Your task to perform on an android device: change alarm snooze length Image 0: 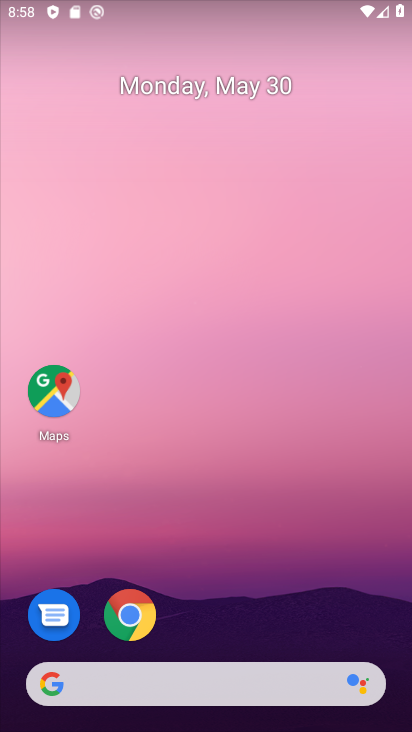
Step 0: drag from (242, 493) to (273, 50)
Your task to perform on an android device: change alarm snooze length Image 1: 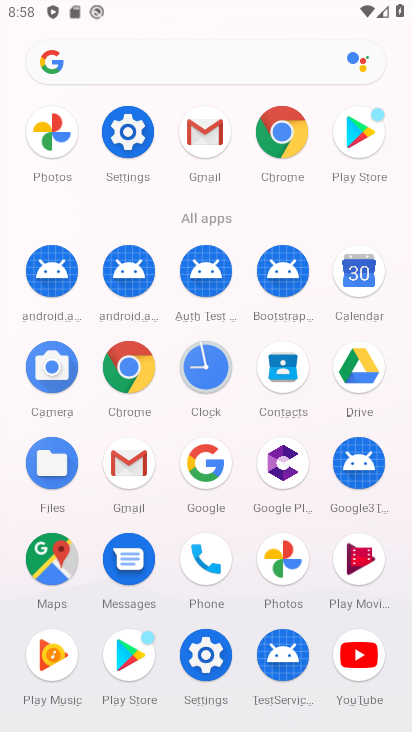
Step 1: click (211, 371)
Your task to perform on an android device: change alarm snooze length Image 2: 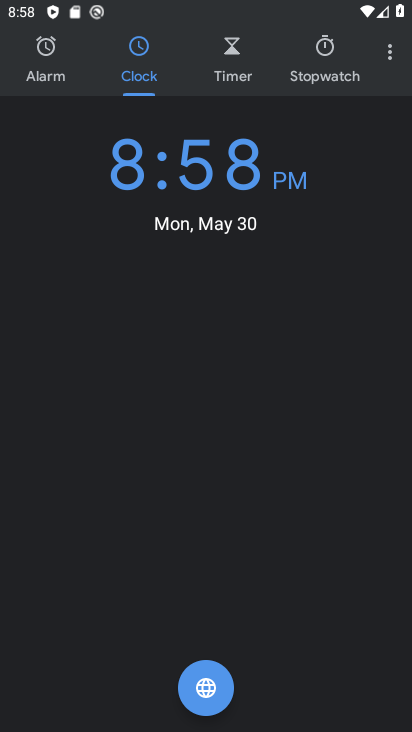
Step 2: click (392, 48)
Your task to perform on an android device: change alarm snooze length Image 3: 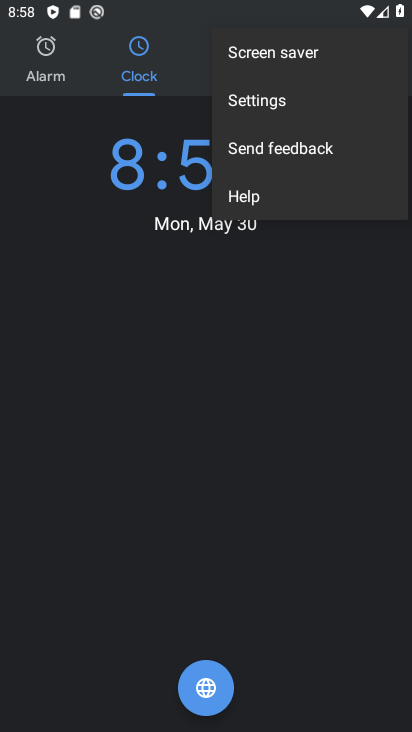
Step 3: click (270, 100)
Your task to perform on an android device: change alarm snooze length Image 4: 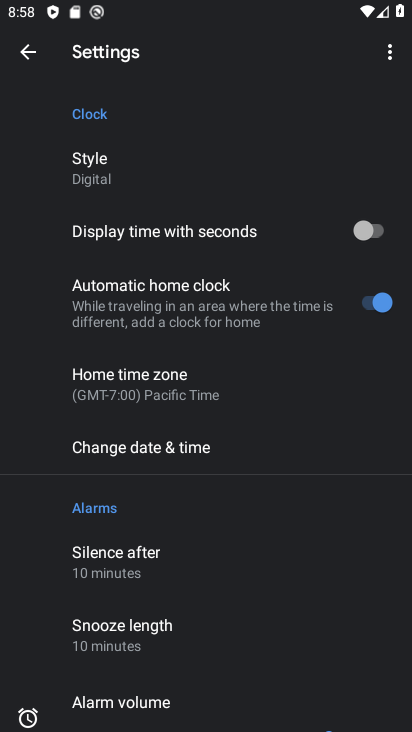
Step 4: click (209, 614)
Your task to perform on an android device: change alarm snooze length Image 5: 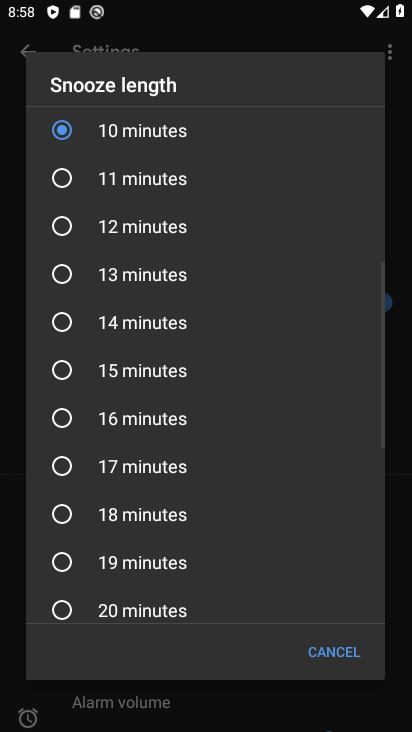
Step 5: click (166, 226)
Your task to perform on an android device: change alarm snooze length Image 6: 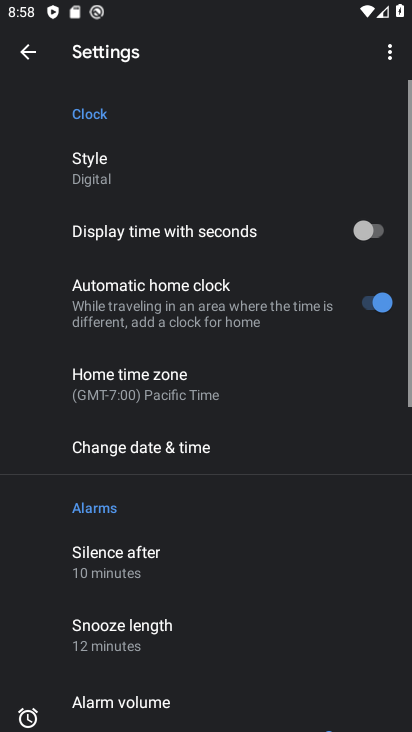
Step 6: task complete